Your task to perform on an android device: Open Google Chrome and click the shortcut for Amazon.com Image 0: 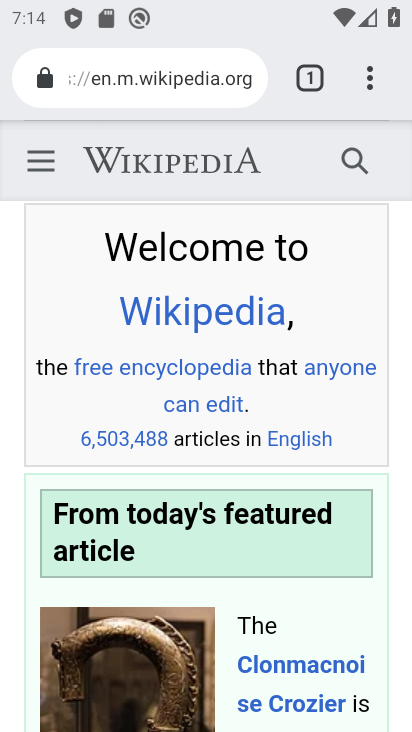
Step 0: press home button
Your task to perform on an android device: Open Google Chrome and click the shortcut for Amazon.com Image 1: 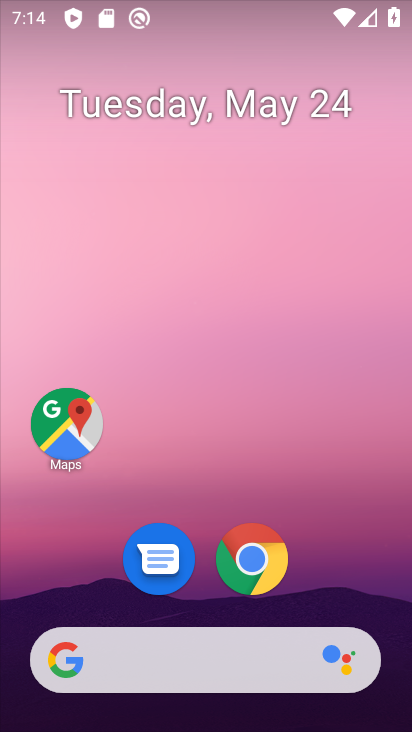
Step 1: click (233, 550)
Your task to perform on an android device: Open Google Chrome and click the shortcut for Amazon.com Image 2: 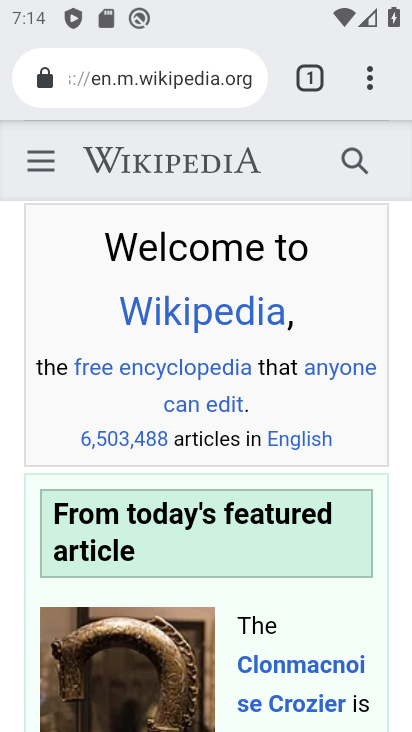
Step 2: press back button
Your task to perform on an android device: Open Google Chrome and click the shortcut for Amazon.com Image 3: 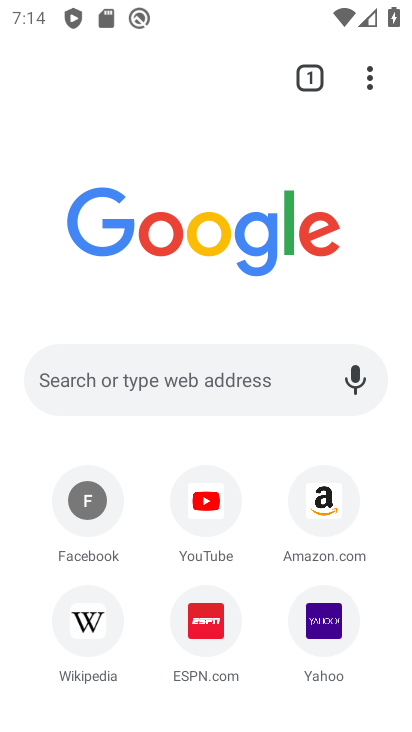
Step 3: click (313, 527)
Your task to perform on an android device: Open Google Chrome and click the shortcut for Amazon.com Image 4: 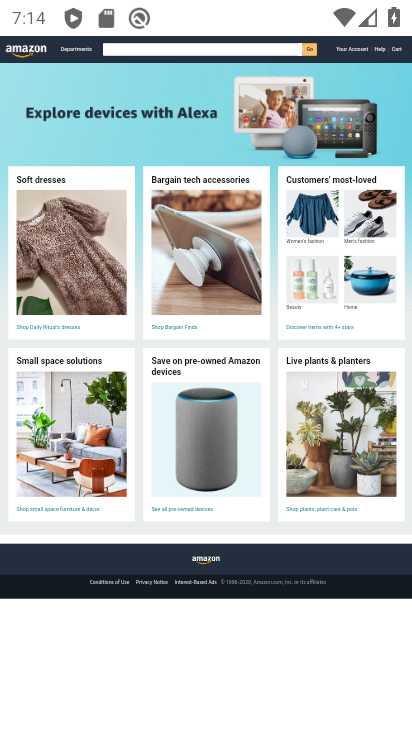
Step 4: task complete